Your task to perform on an android device: Open eBay Image 0: 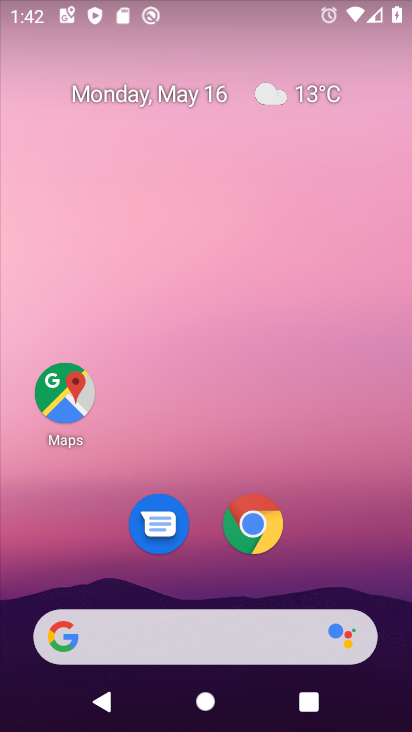
Step 0: click (265, 626)
Your task to perform on an android device: Open eBay Image 1: 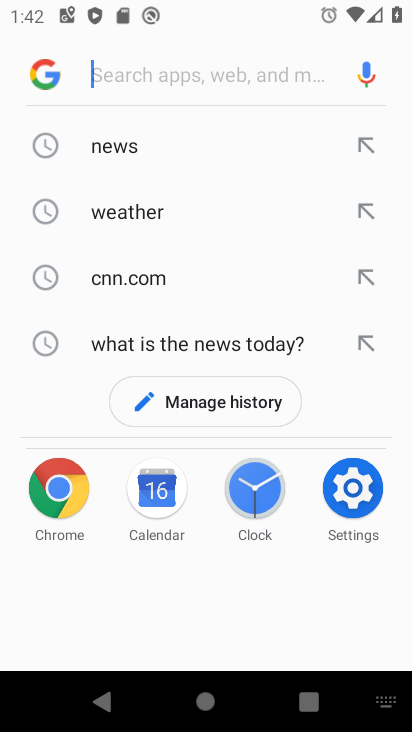
Step 1: type "ebay"
Your task to perform on an android device: Open eBay Image 2: 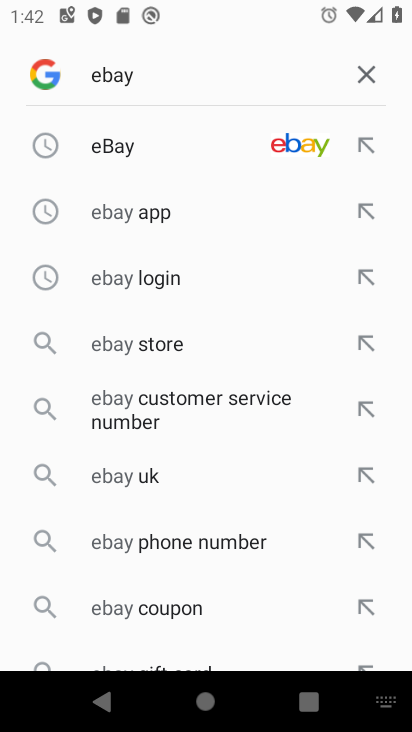
Step 2: click (105, 140)
Your task to perform on an android device: Open eBay Image 3: 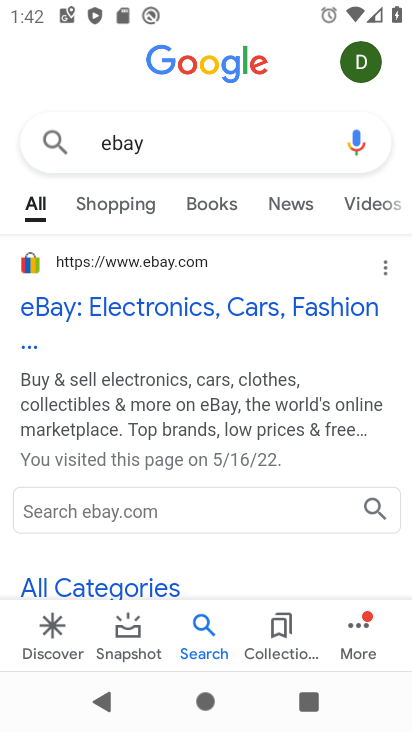
Step 3: click (52, 303)
Your task to perform on an android device: Open eBay Image 4: 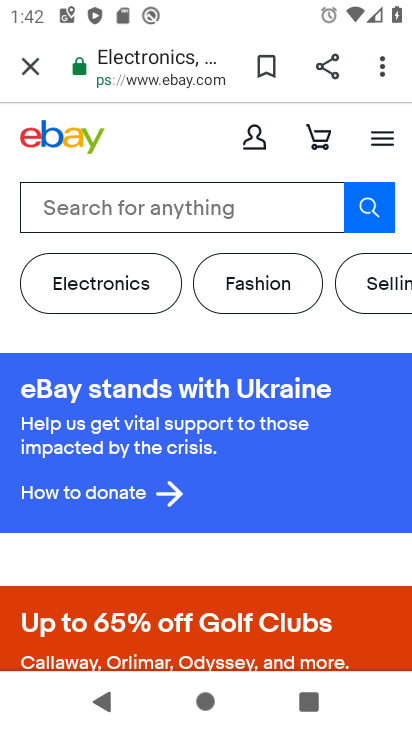
Step 4: task complete